Your task to perform on an android device: Search for 'The Girl on the Train' on Goodreads. Image 0: 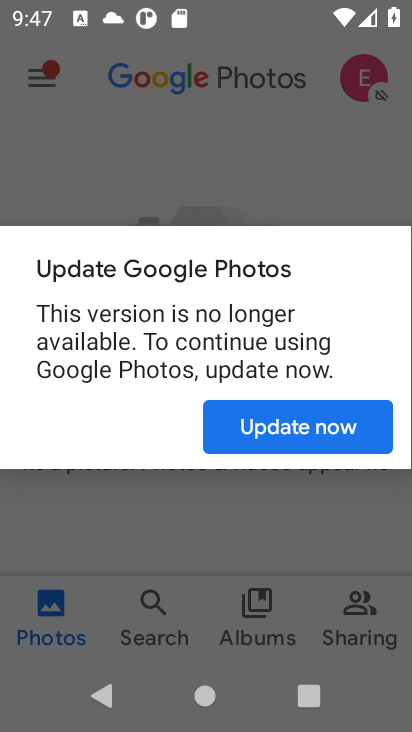
Step 0: press home button
Your task to perform on an android device: Search for 'The Girl on the Train' on Goodreads. Image 1: 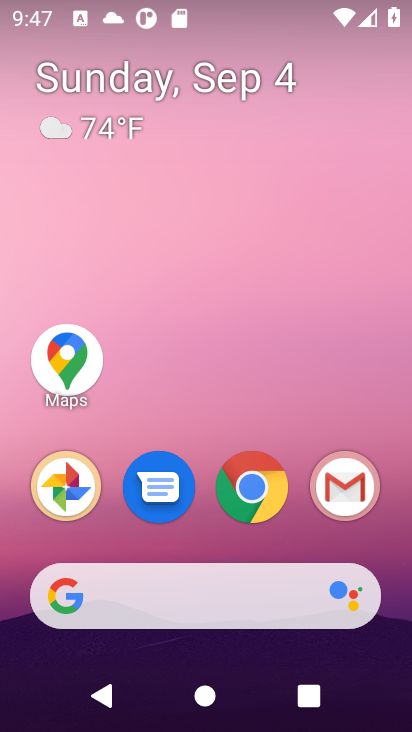
Step 1: click (237, 494)
Your task to perform on an android device: Search for 'The Girl on the Train' on Goodreads. Image 2: 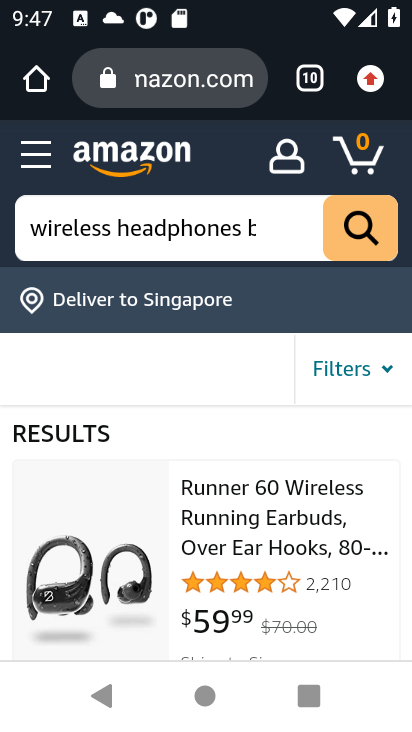
Step 2: click (313, 76)
Your task to perform on an android device: Search for 'The Girl on the Train' on Goodreads. Image 3: 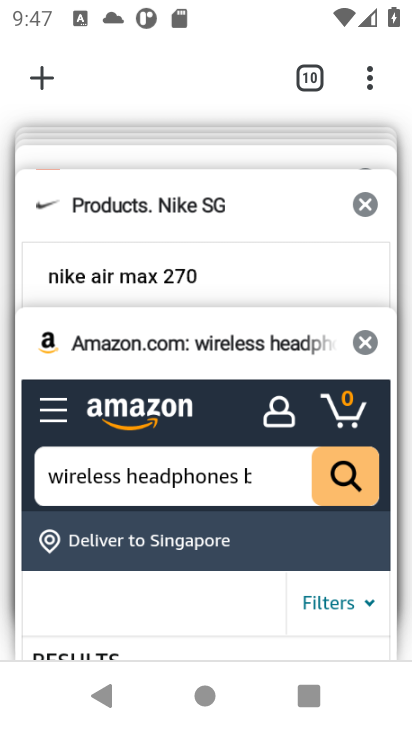
Step 3: click (34, 69)
Your task to perform on an android device: Search for 'The Girl on the Train' on Goodreads. Image 4: 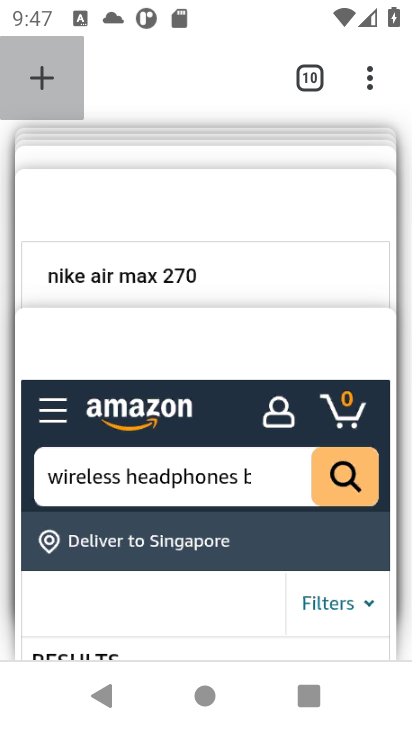
Step 4: click (34, 69)
Your task to perform on an android device: Search for 'The Girl on the Train' on Goodreads. Image 5: 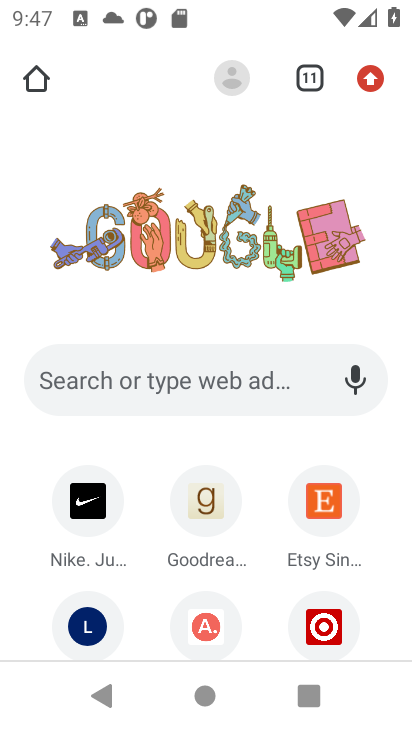
Step 5: click (150, 388)
Your task to perform on an android device: Search for 'The Girl on the Train' on Goodreads. Image 6: 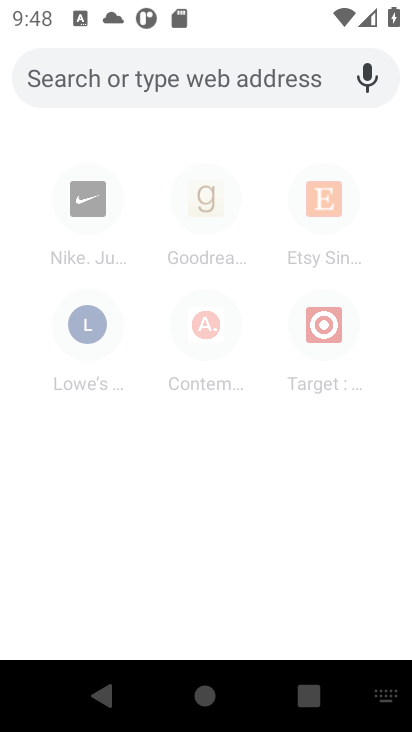
Step 6: type " goodreads.com"
Your task to perform on an android device: Search for 'The Girl on the Train' on Goodreads. Image 7: 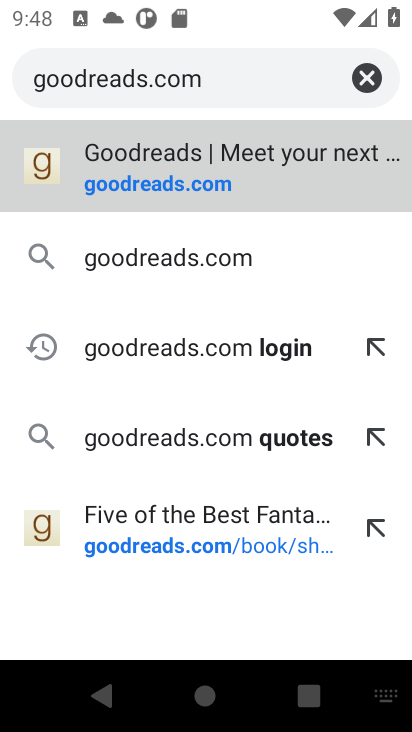
Step 7: click (250, 145)
Your task to perform on an android device: Search for 'The Girl on the Train' on Goodreads. Image 8: 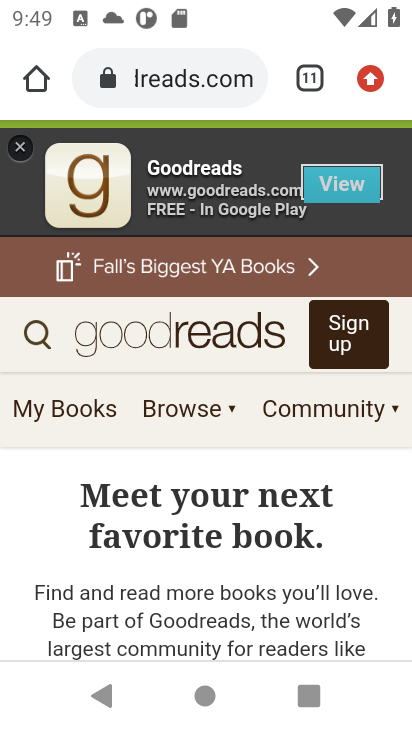
Step 8: click (41, 339)
Your task to perform on an android device: Search for 'The Girl on the Train' on Goodreads. Image 9: 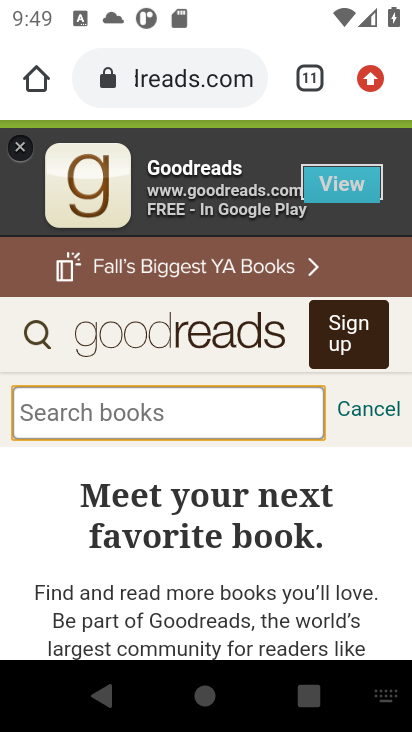
Step 9: type "The Girl on the Train"
Your task to perform on an android device: Search for 'The Girl on the Train' on Goodreads. Image 10: 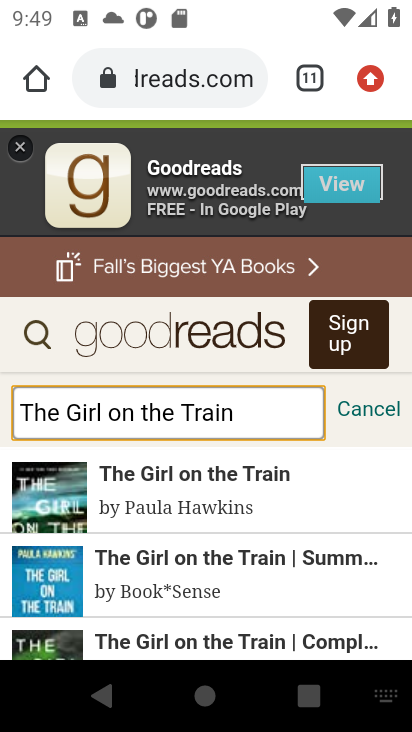
Step 10: click (215, 498)
Your task to perform on an android device: Search for 'The Girl on the Train' on Goodreads. Image 11: 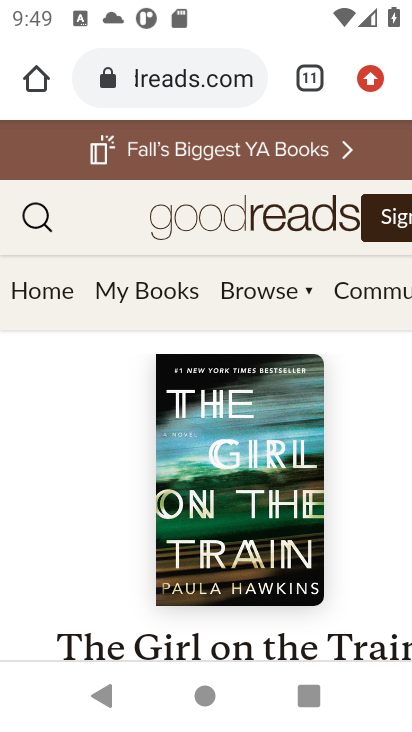
Step 11: task complete